Your task to perform on an android device: toggle location history Image 0: 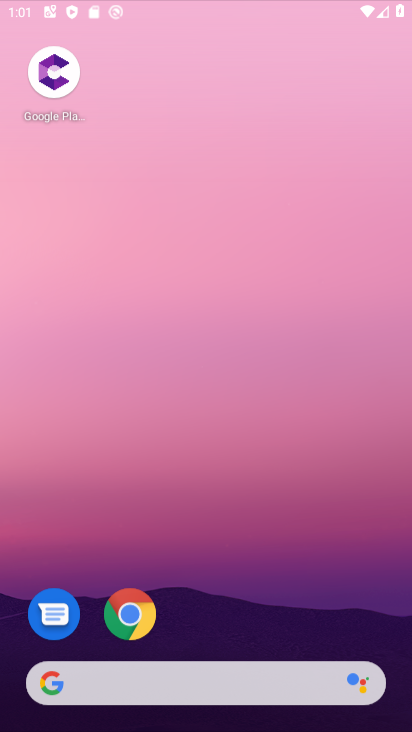
Step 0: click (203, 156)
Your task to perform on an android device: toggle location history Image 1: 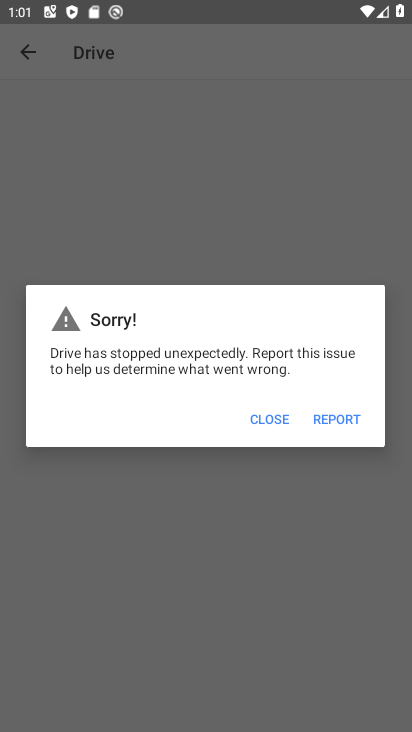
Step 1: drag from (229, 660) to (274, 490)
Your task to perform on an android device: toggle location history Image 2: 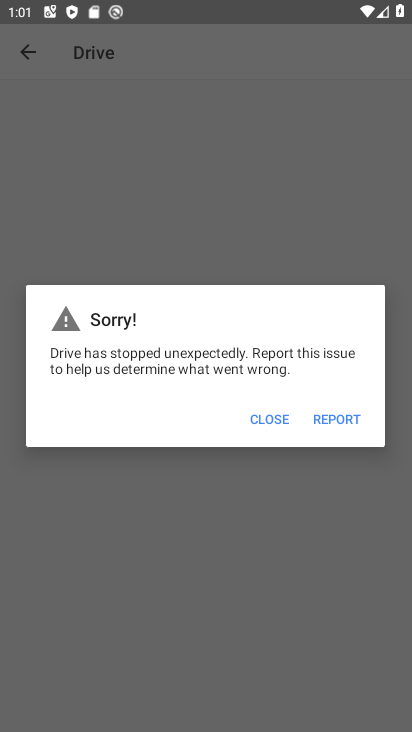
Step 2: click (274, 421)
Your task to perform on an android device: toggle location history Image 3: 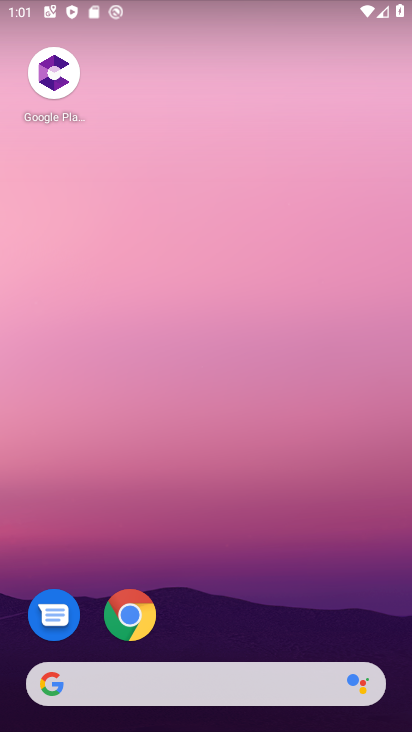
Step 3: press home button
Your task to perform on an android device: toggle location history Image 4: 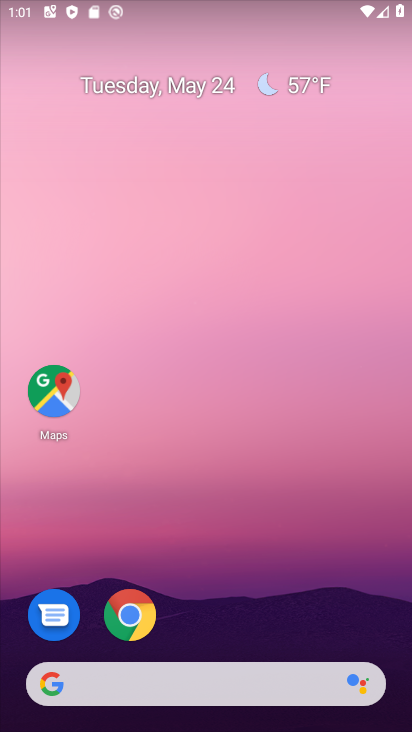
Step 4: drag from (215, 661) to (299, 57)
Your task to perform on an android device: toggle location history Image 5: 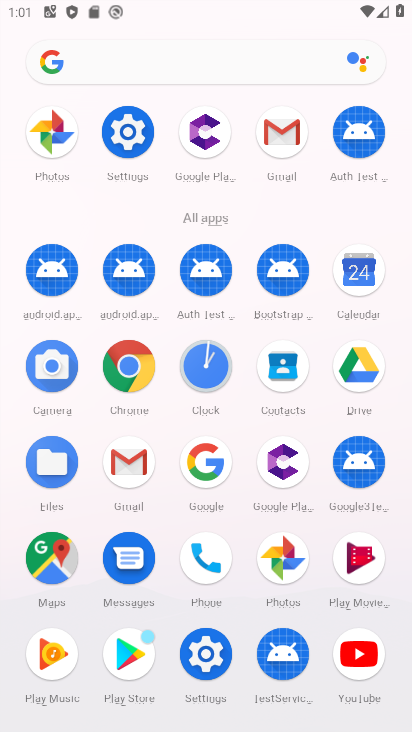
Step 5: click (213, 656)
Your task to perform on an android device: toggle location history Image 6: 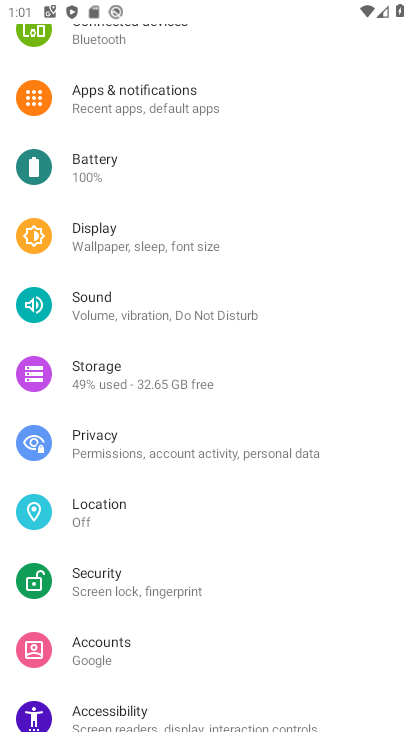
Step 6: click (119, 502)
Your task to perform on an android device: toggle location history Image 7: 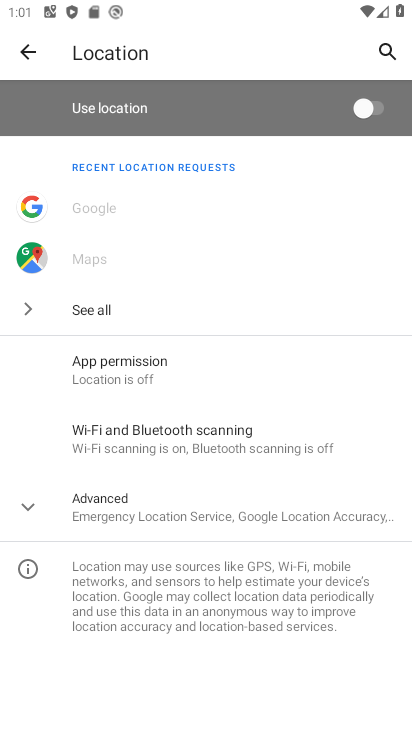
Step 7: click (119, 502)
Your task to perform on an android device: toggle location history Image 8: 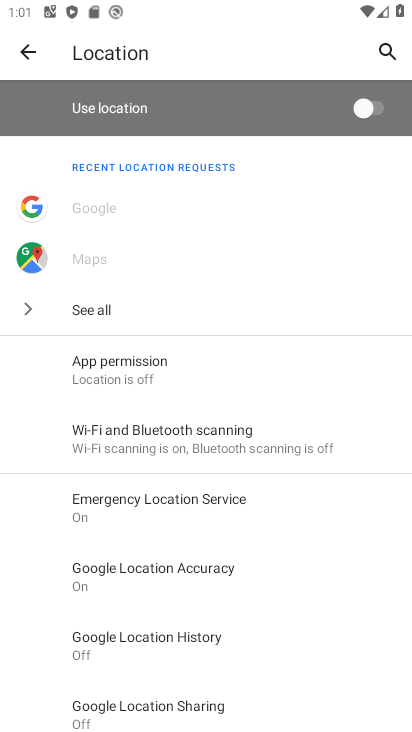
Step 8: click (136, 644)
Your task to perform on an android device: toggle location history Image 9: 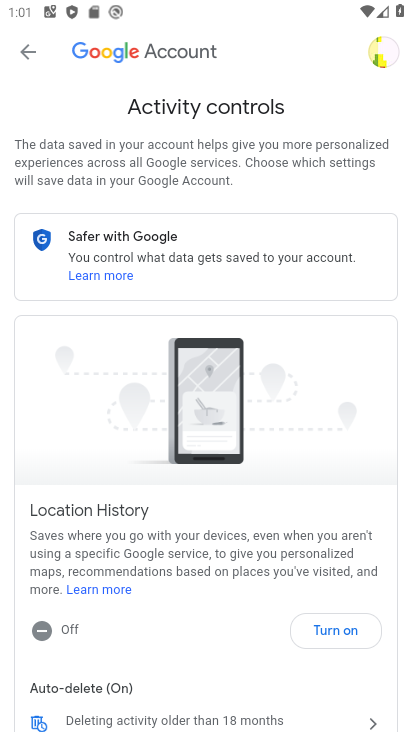
Step 9: click (343, 635)
Your task to perform on an android device: toggle location history Image 10: 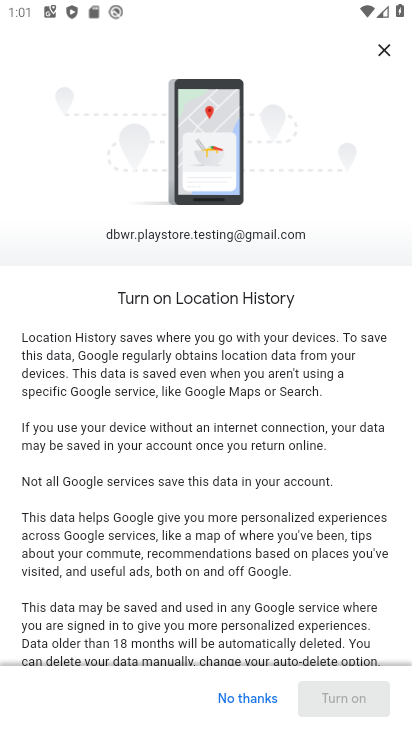
Step 10: drag from (348, 649) to (354, 312)
Your task to perform on an android device: toggle location history Image 11: 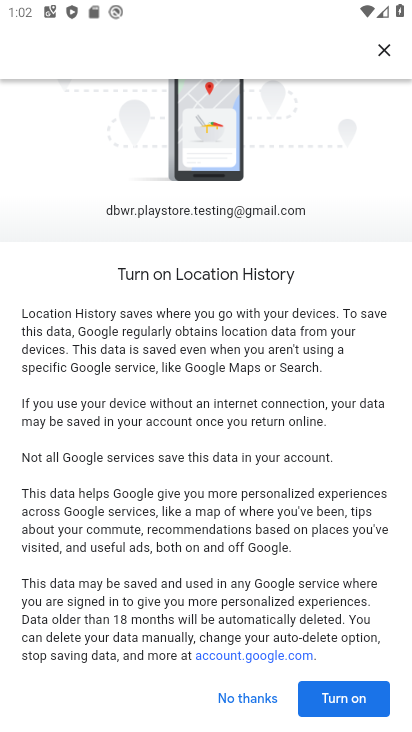
Step 11: click (359, 702)
Your task to perform on an android device: toggle location history Image 12: 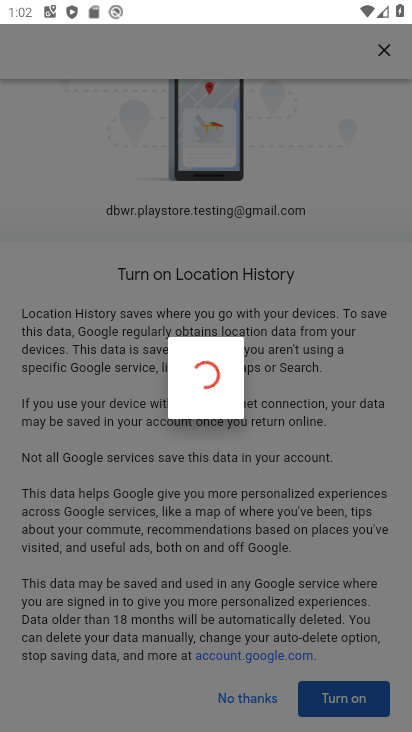
Step 12: click (359, 702)
Your task to perform on an android device: toggle location history Image 13: 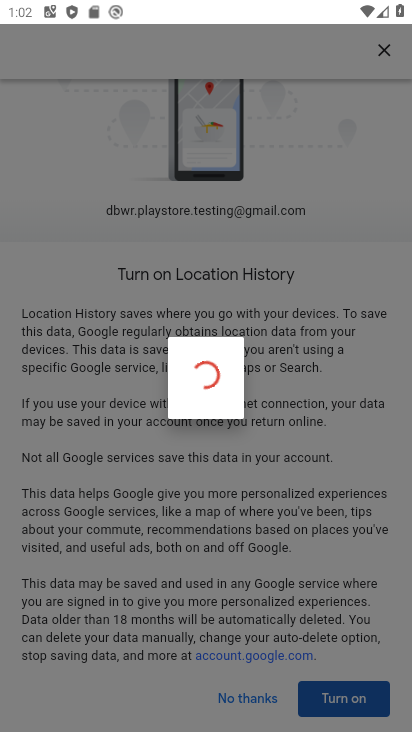
Step 13: click (359, 702)
Your task to perform on an android device: toggle location history Image 14: 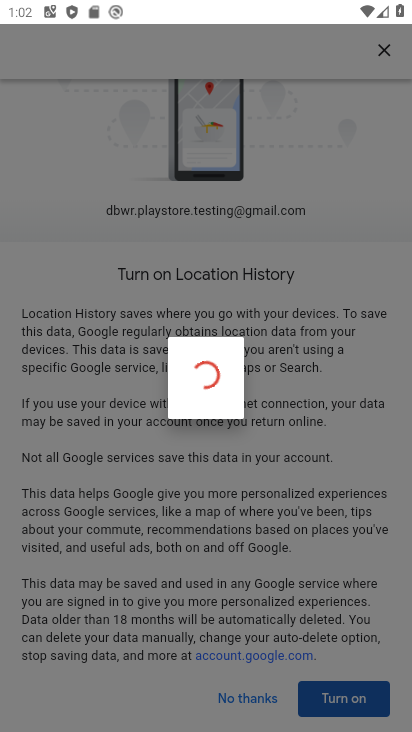
Step 14: click (359, 702)
Your task to perform on an android device: toggle location history Image 15: 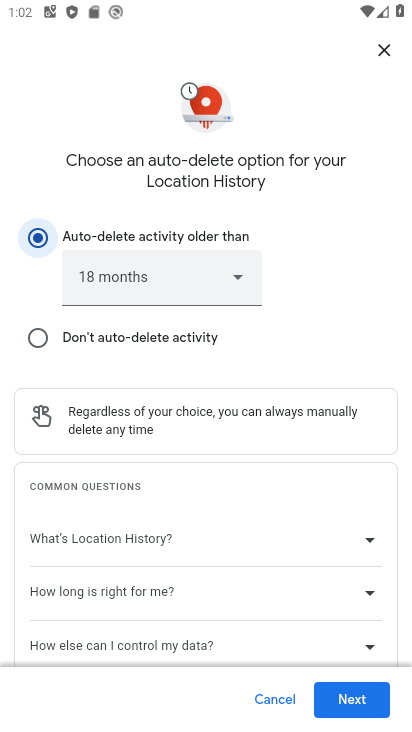
Step 15: click (373, 696)
Your task to perform on an android device: toggle location history Image 16: 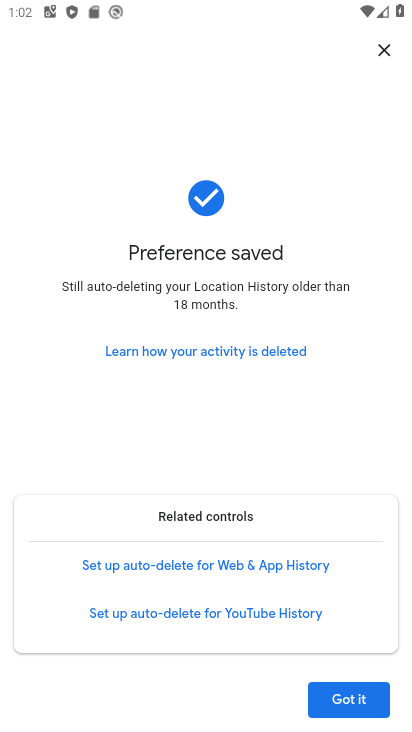
Step 16: click (359, 690)
Your task to perform on an android device: toggle location history Image 17: 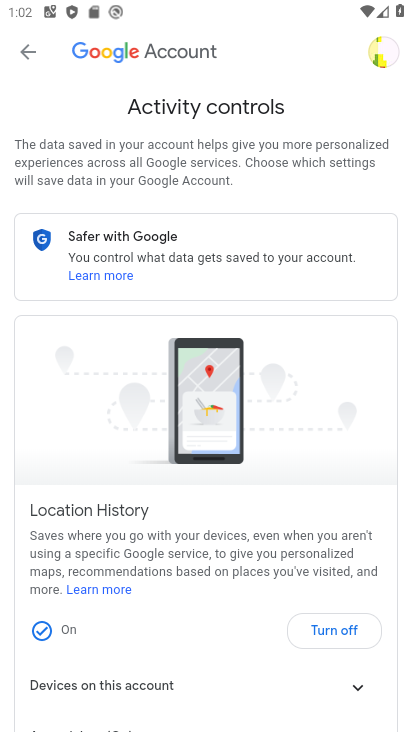
Step 17: task complete